Your task to perform on an android device: star an email in the gmail app Image 0: 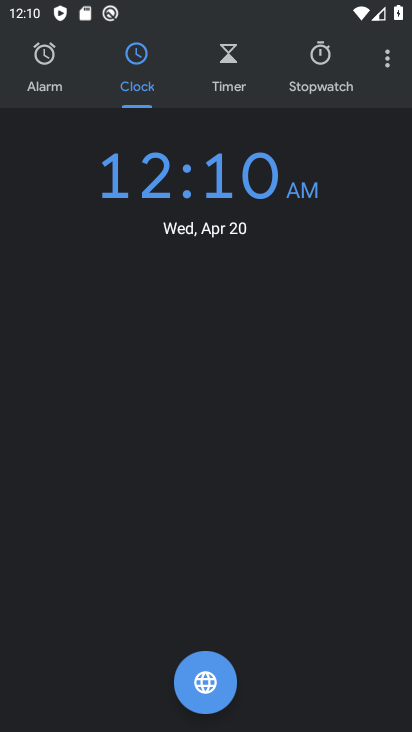
Step 0: press home button
Your task to perform on an android device: star an email in the gmail app Image 1: 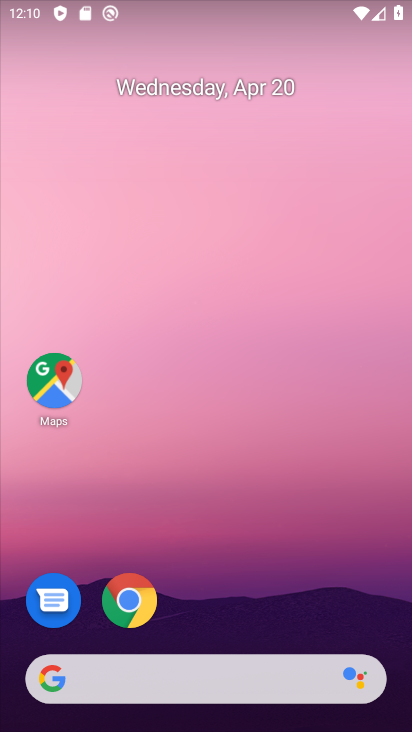
Step 1: drag from (341, 586) to (279, 207)
Your task to perform on an android device: star an email in the gmail app Image 2: 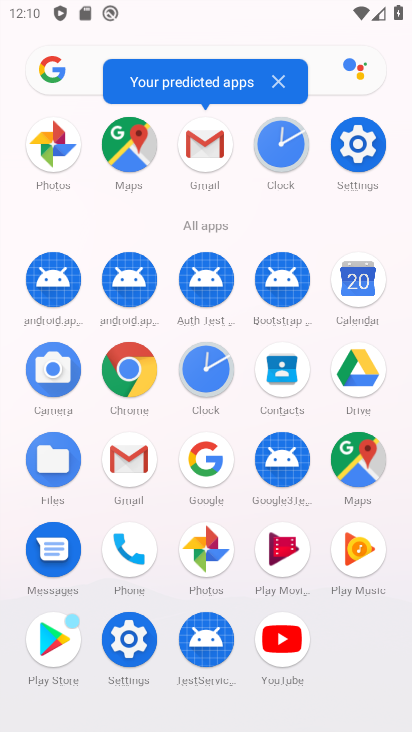
Step 2: click (211, 162)
Your task to perform on an android device: star an email in the gmail app Image 3: 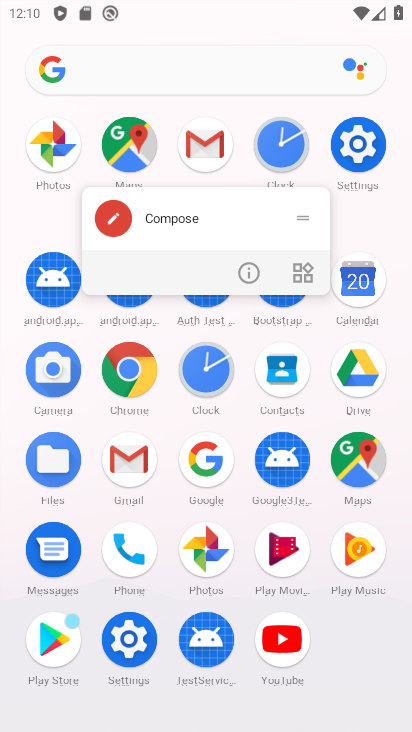
Step 3: click (211, 162)
Your task to perform on an android device: star an email in the gmail app Image 4: 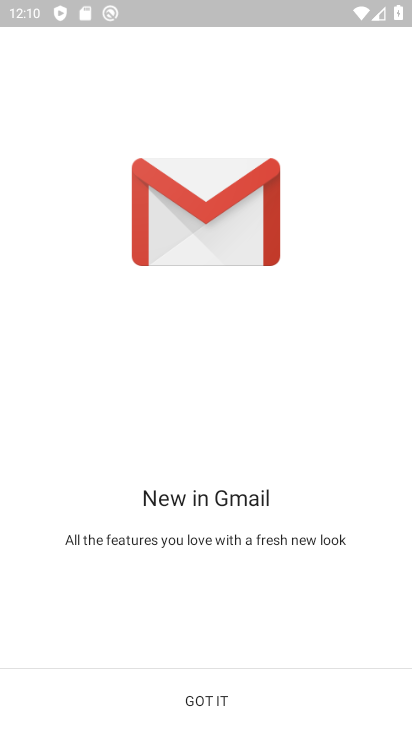
Step 4: click (207, 702)
Your task to perform on an android device: star an email in the gmail app Image 5: 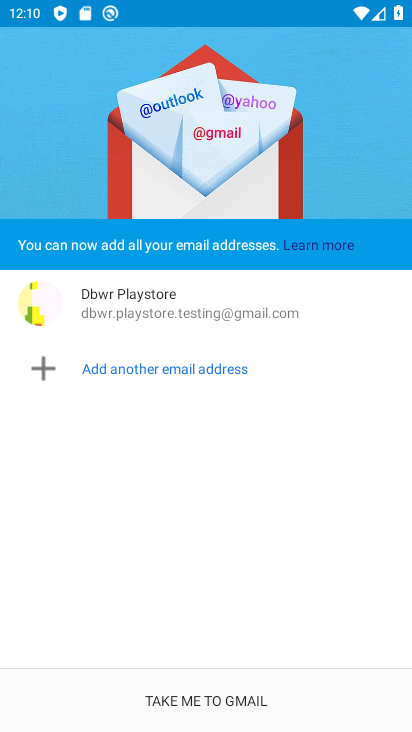
Step 5: click (207, 702)
Your task to perform on an android device: star an email in the gmail app Image 6: 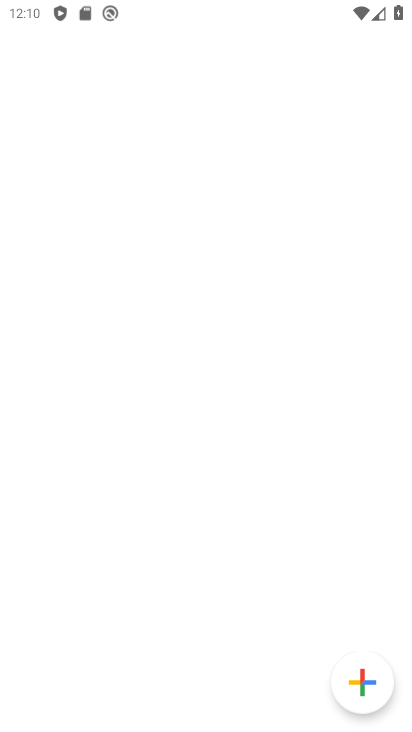
Step 6: click (207, 702)
Your task to perform on an android device: star an email in the gmail app Image 7: 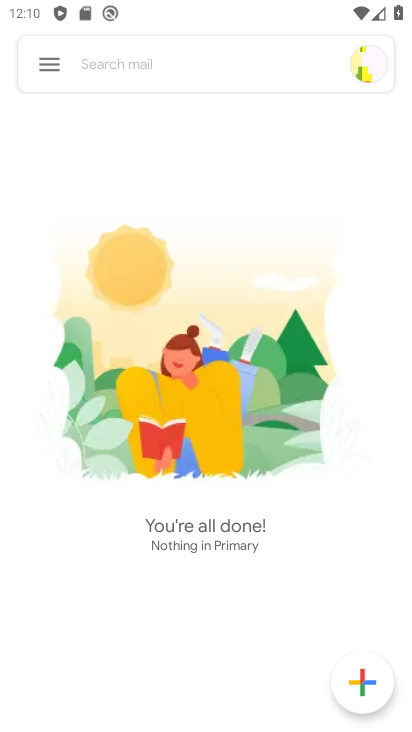
Step 7: click (41, 67)
Your task to perform on an android device: star an email in the gmail app Image 8: 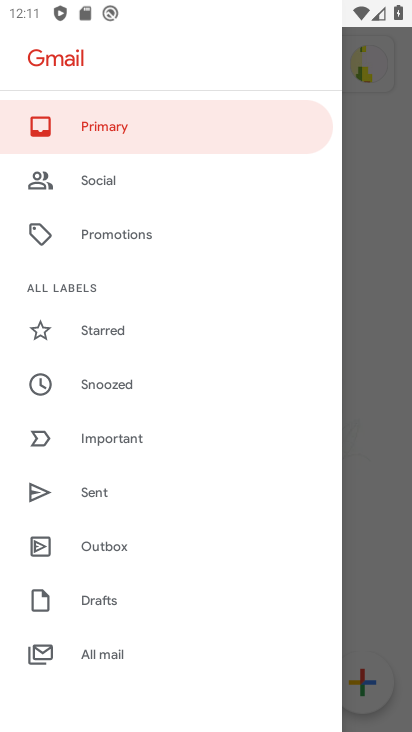
Step 8: click (174, 648)
Your task to perform on an android device: star an email in the gmail app Image 9: 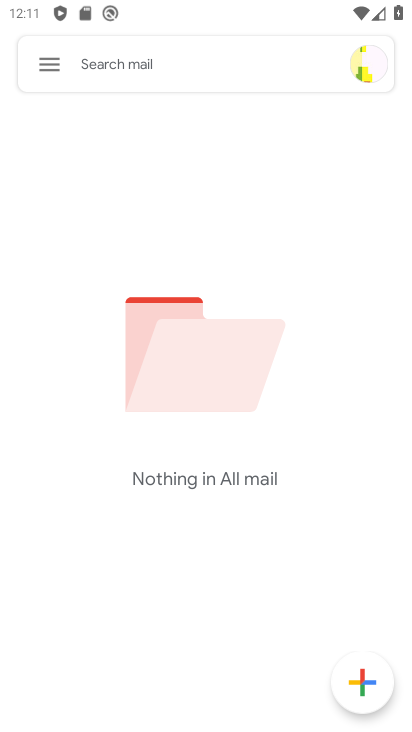
Step 9: task complete